Your task to perform on an android device: Search for pizza restaurants on Maps Image 0: 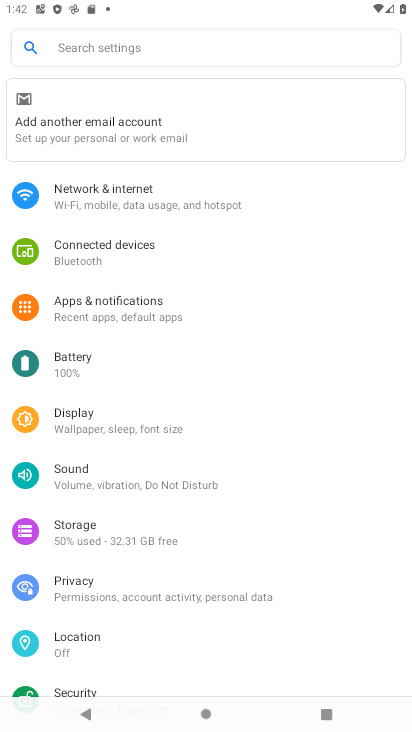
Step 0: press home button
Your task to perform on an android device: Search for pizza restaurants on Maps Image 1: 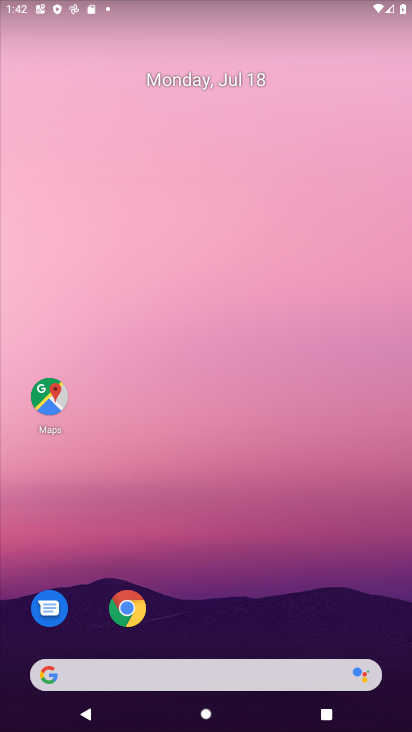
Step 1: drag from (367, 658) to (240, 4)
Your task to perform on an android device: Search for pizza restaurants on Maps Image 2: 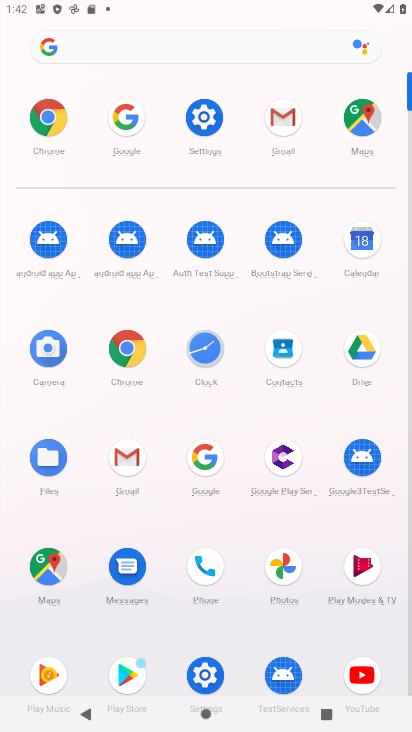
Step 2: click (49, 566)
Your task to perform on an android device: Search for pizza restaurants on Maps Image 3: 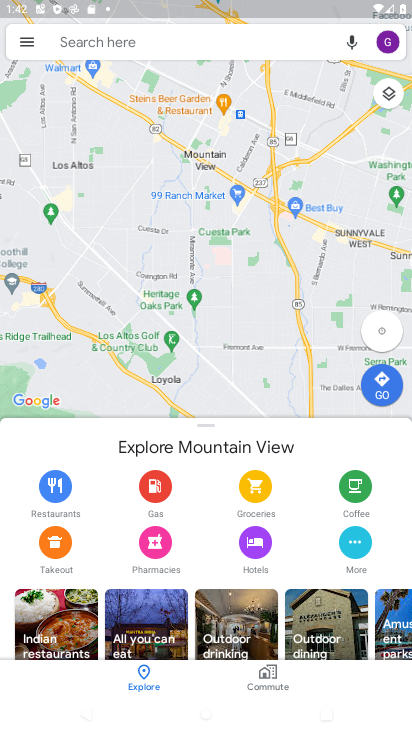
Step 3: click (132, 48)
Your task to perform on an android device: Search for pizza restaurants on Maps Image 4: 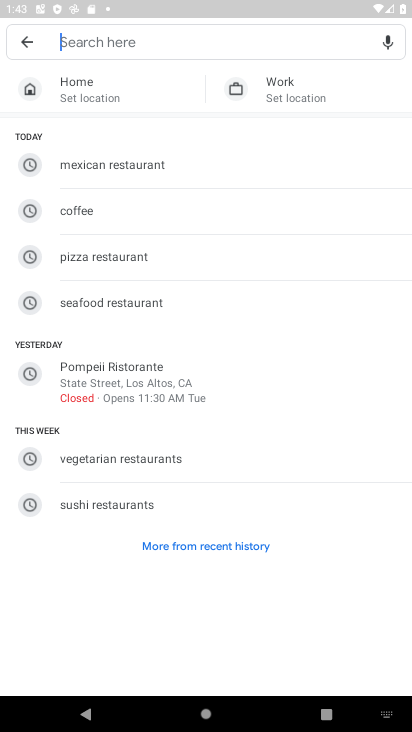
Step 4: click (115, 256)
Your task to perform on an android device: Search for pizza restaurants on Maps Image 5: 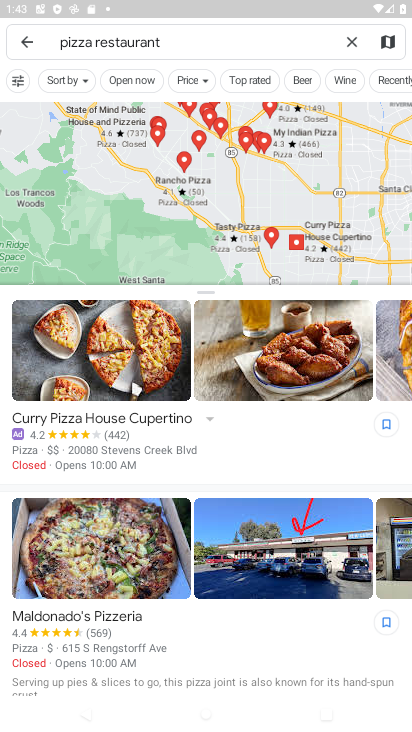
Step 5: task complete